Your task to perform on an android device: open a new tab in the chrome app Image 0: 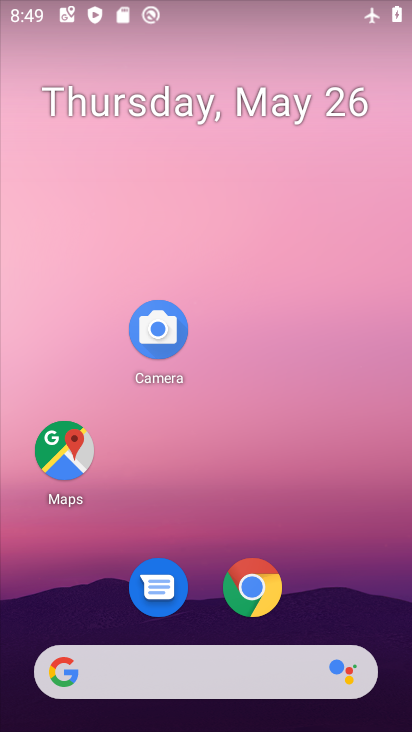
Step 0: click (247, 592)
Your task to perform on an android device: open a new tab in the chrome app Image 1: 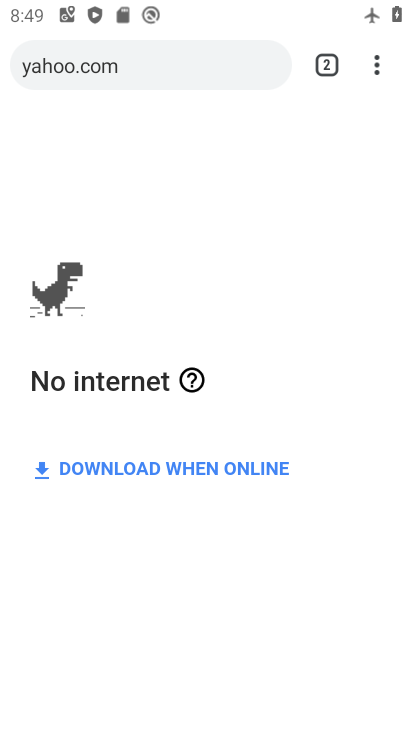
Step 1: task complete